Your task to perform on an android device: open app "Microsoft Excel" Image 0: 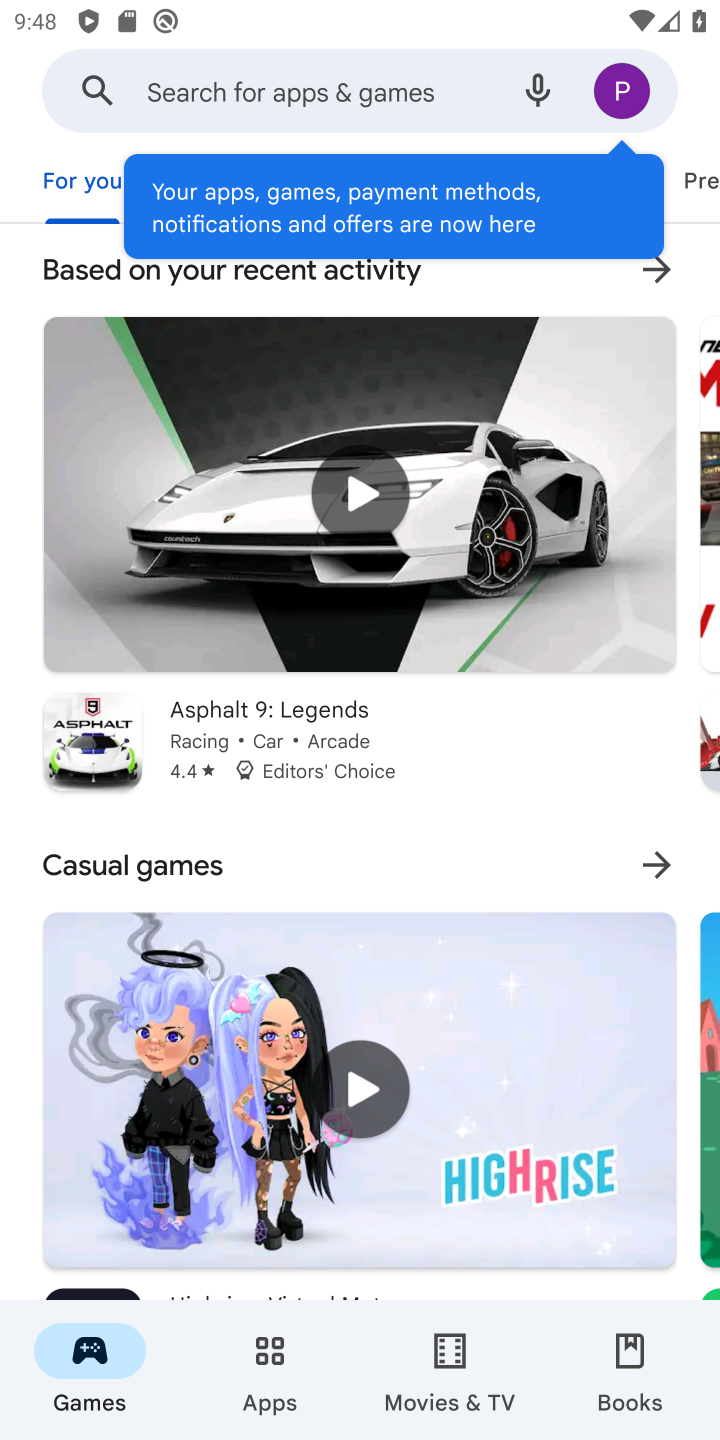
Step 0: click (244, 78)
Your task to perform on an android device: open app "Microsoft Excel" Image 1: 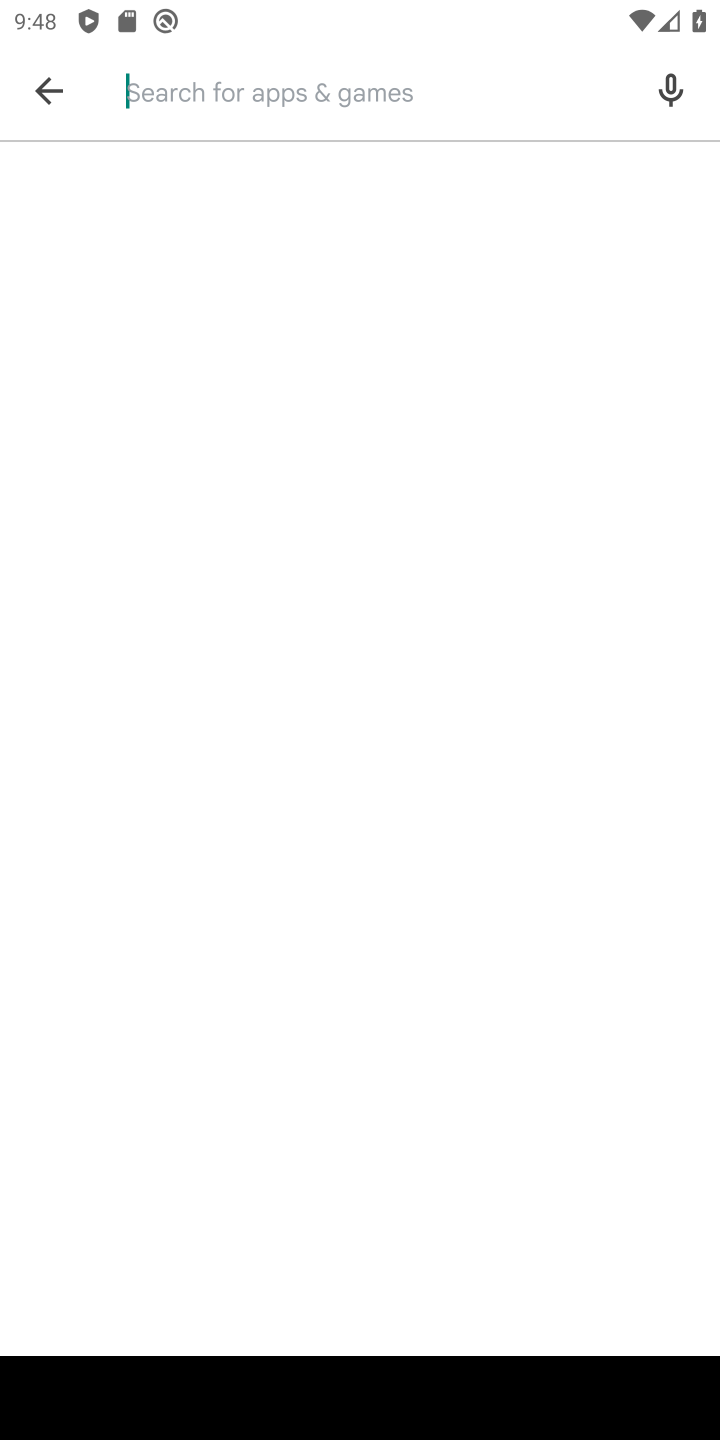
Step 1: type "Microsoft Excel"
Your task to perform on an android device: open app "Microsoft Excel" Image 2: 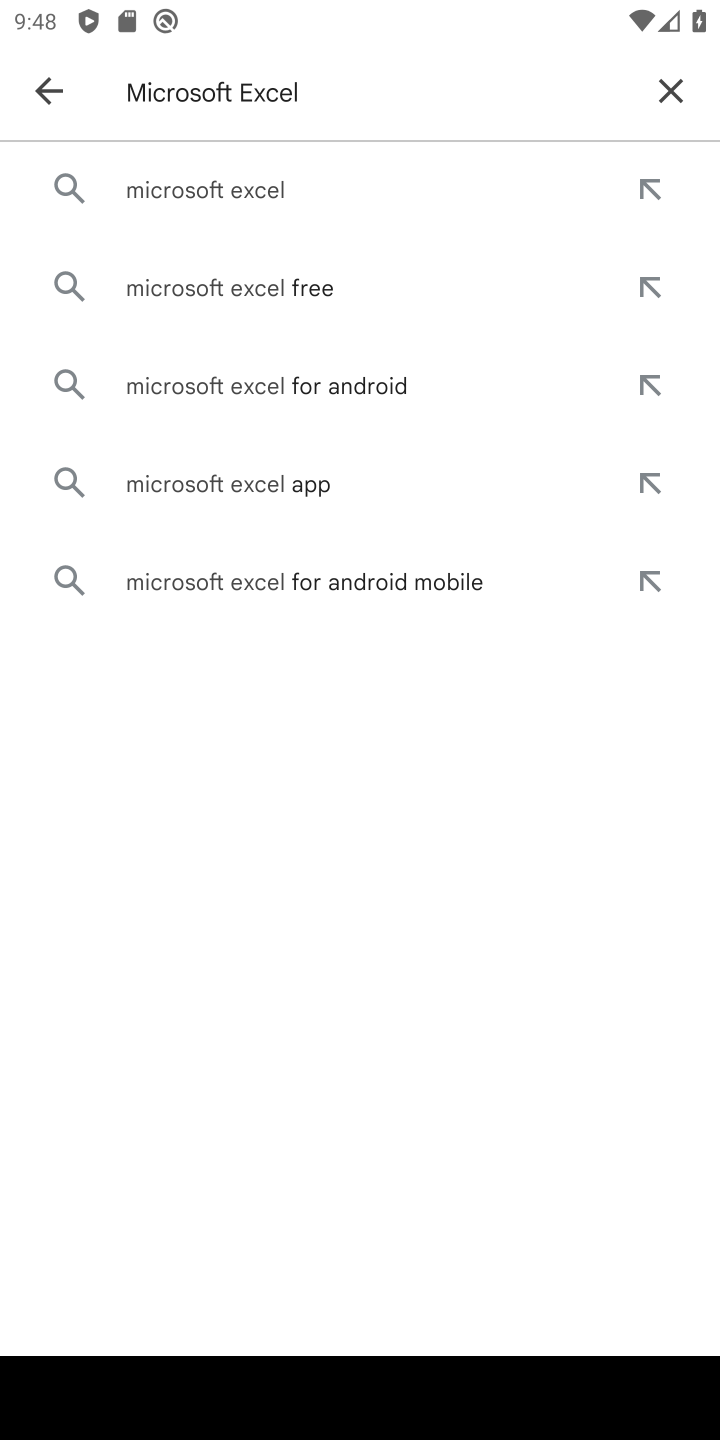
Step 2: click (263, 197)
Your task to perform on an android device: open app "Microsoft Excel" Image 3: 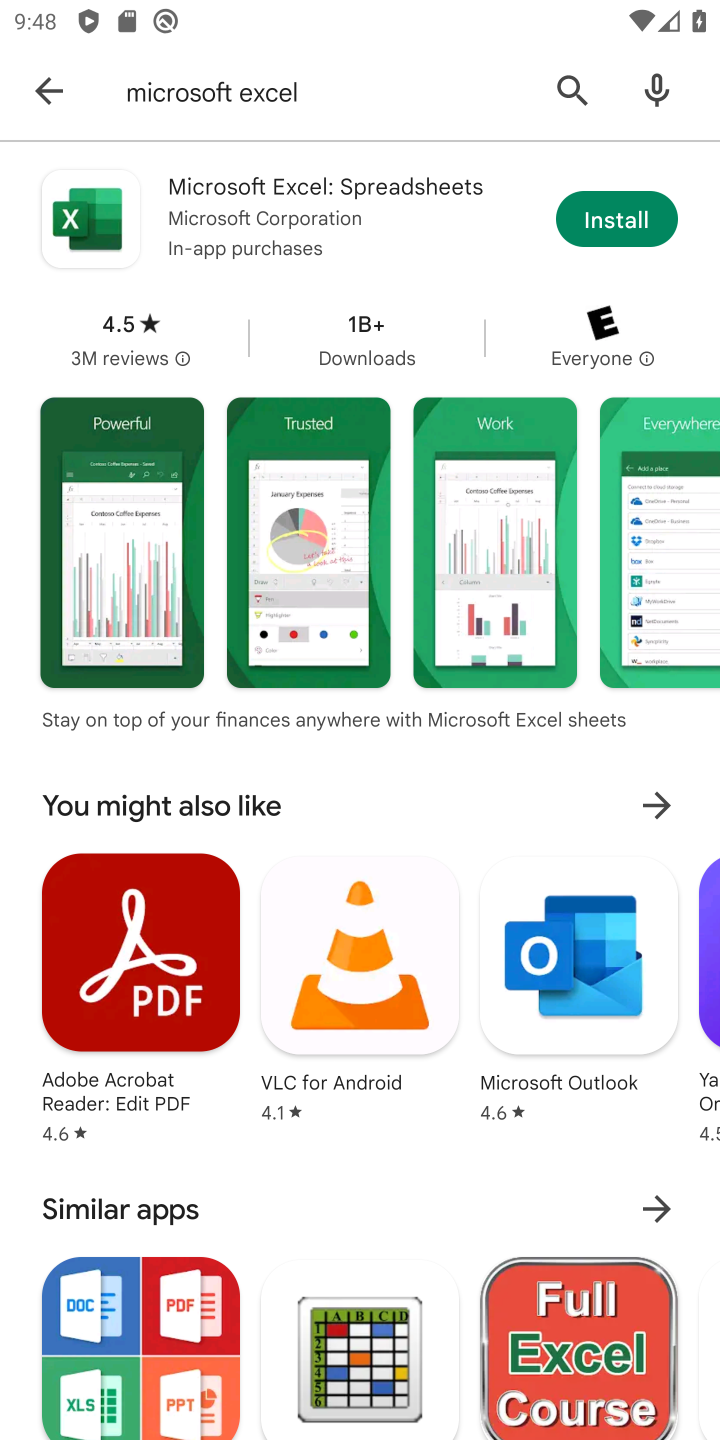
Step 3: click (582, 213)
Your task to perform on an android device: open app "Microsoft Excel" Image 4: 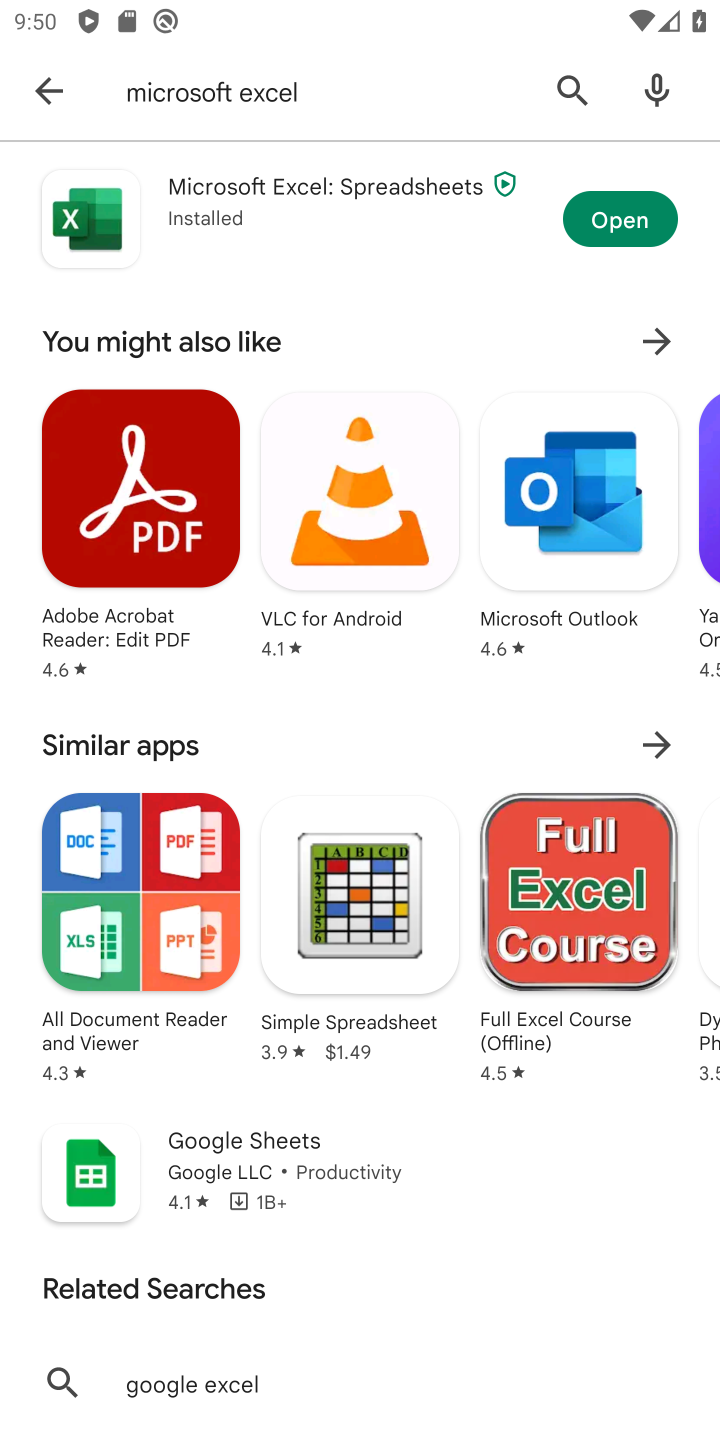
Step 4: click (619, 219)
Your task to perform on an android device: open app "Microsoft Excel" Image 5: 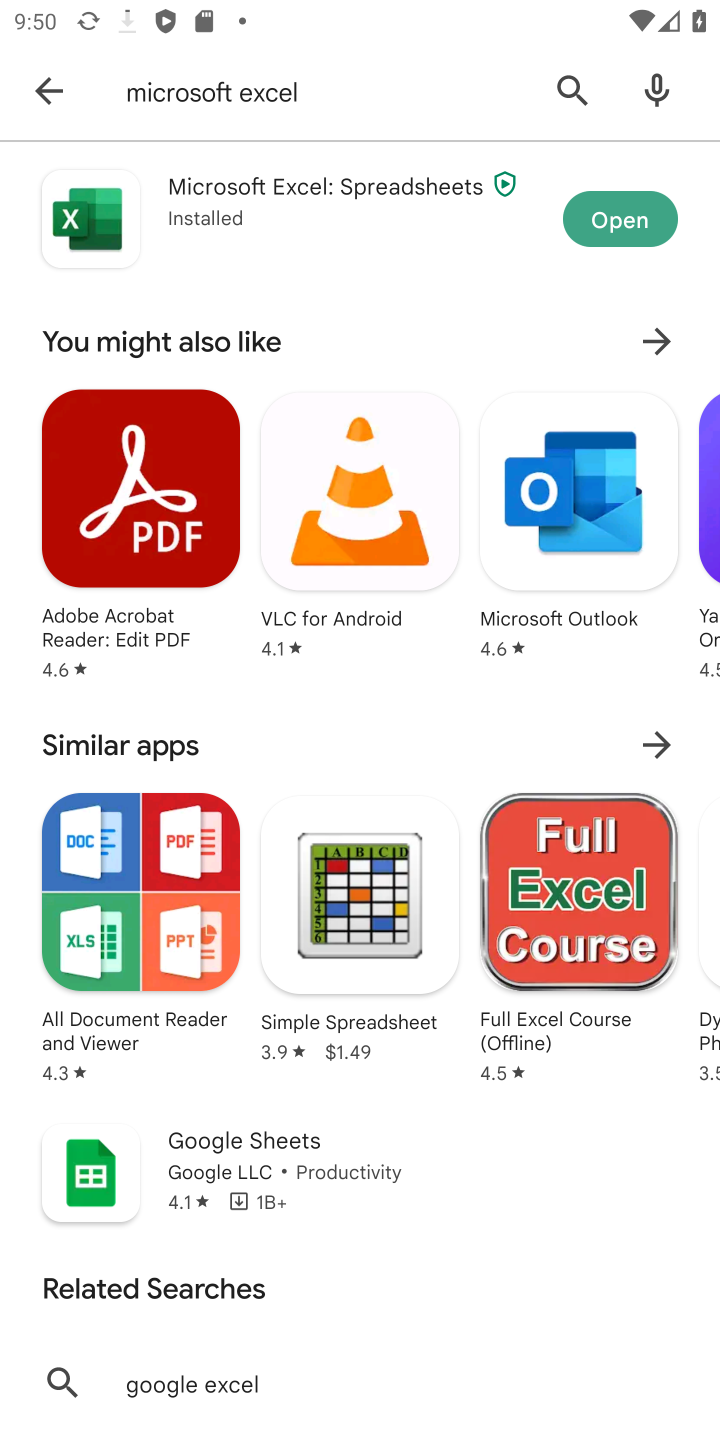
Step 5: task complete